Your task to perform on an android device: change notifications settings Image 0: 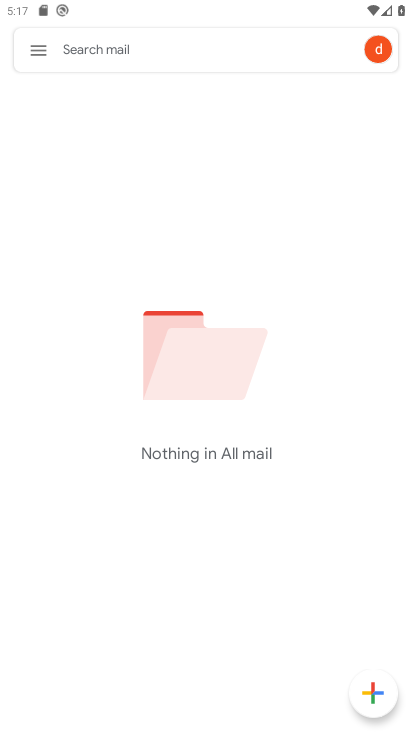
Step 0: press home button
Your task to perform on an android device: change notifications settings Image 1: 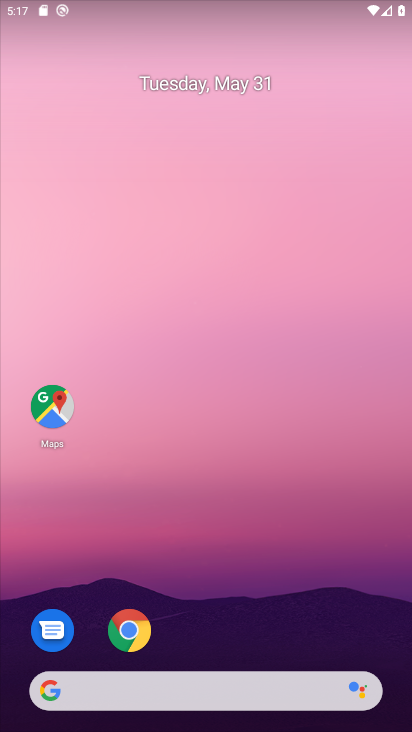
Step 1: drag from (225, 561) to (204, 56)
Your task to perform on an android device: change notifications settings Image 2: 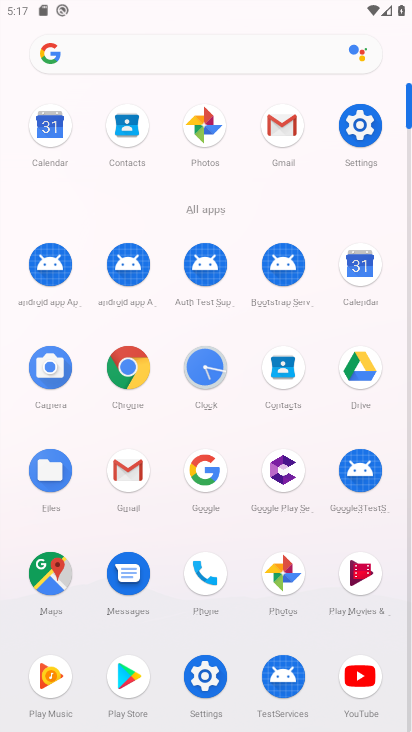
Step 2: click (368, 127)
Your task to perform on an android device: change notifications settings Image 3: 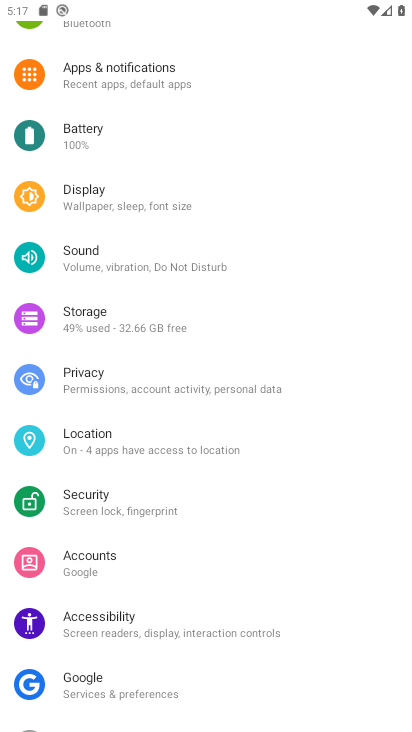
Step 3: click (133, 92)
Your task to perform on an android device: change notifications settings Image 4: 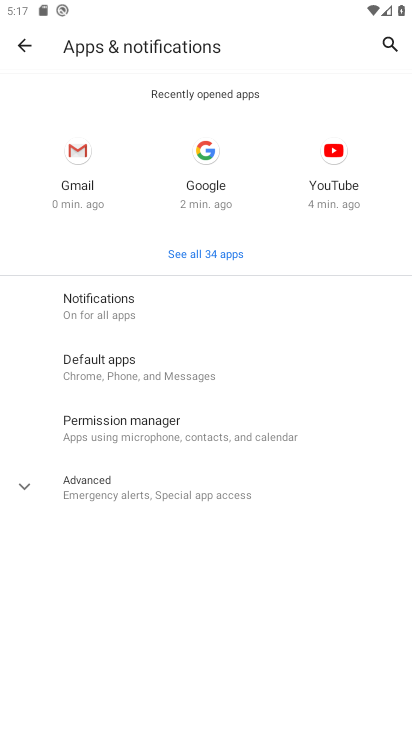
Step 4: click (73, 309)
Your task to perform on an android device: change notifications settings Image 5: 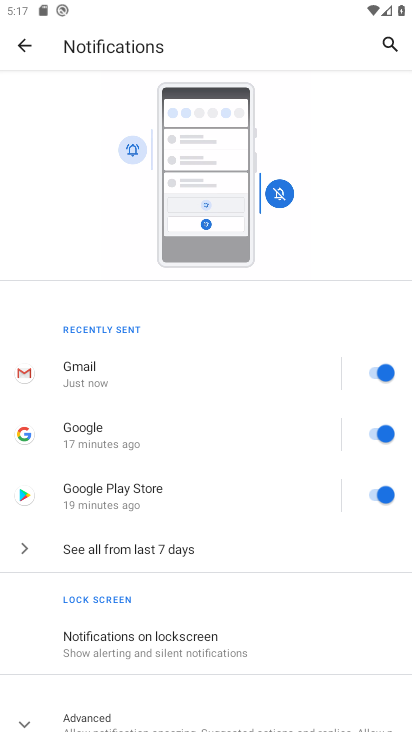
Step 5: click (142, 646)
Your task to perform on an android device: change notifications settings Image 6: 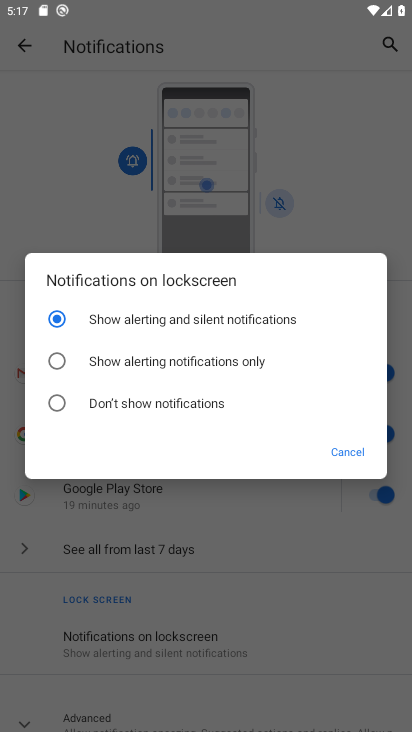
Step 6: click (70, 359)
Your task to perform on an android device: change notifications settings Image 7: 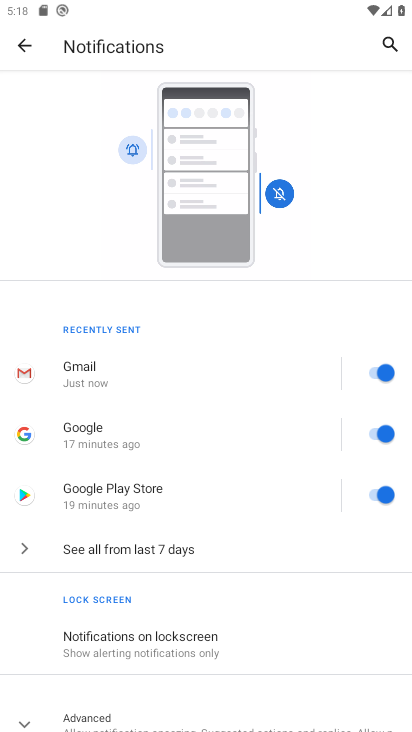
Step 7: task complete